Your task to perform on an android device: turn off picture-in-picture Image 0: 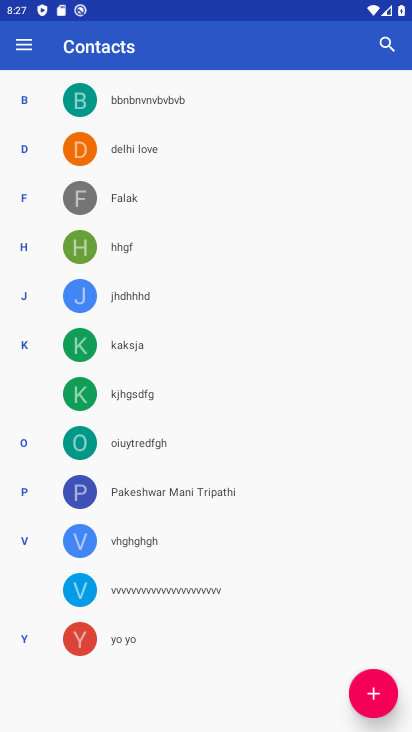
Step 0: press home button
Your task to perform on an android device: turn off picture-in-picture Image 1: 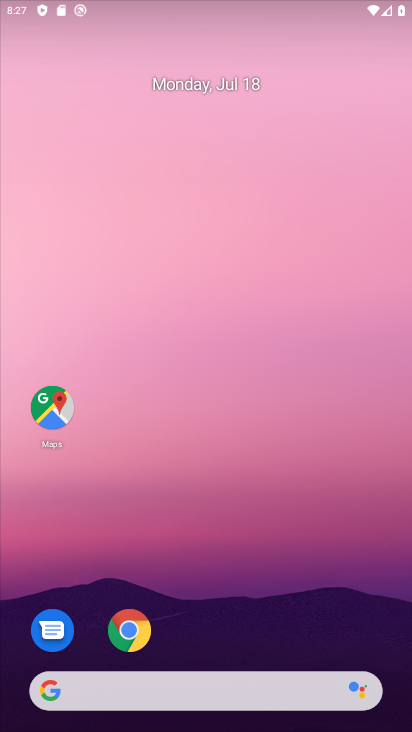
Step 1: drag from (211, 628) to (195, 262)
Your task to perform on an android device: turn off picture-in-picture Image 2: 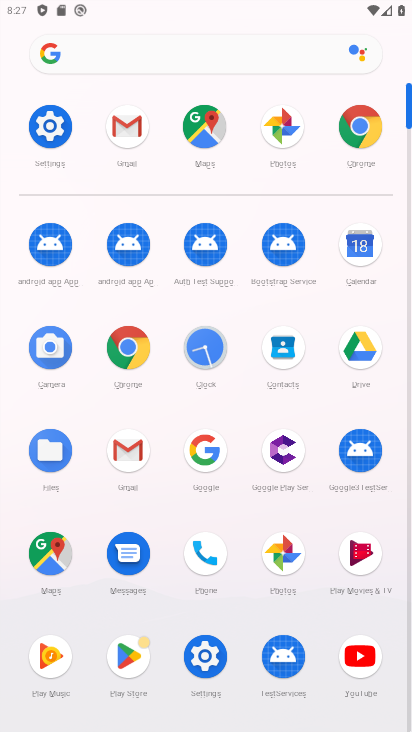
Step 2: click (372, 117)
Your task to perform on an android device: turn off picture-in-picture Image 3: 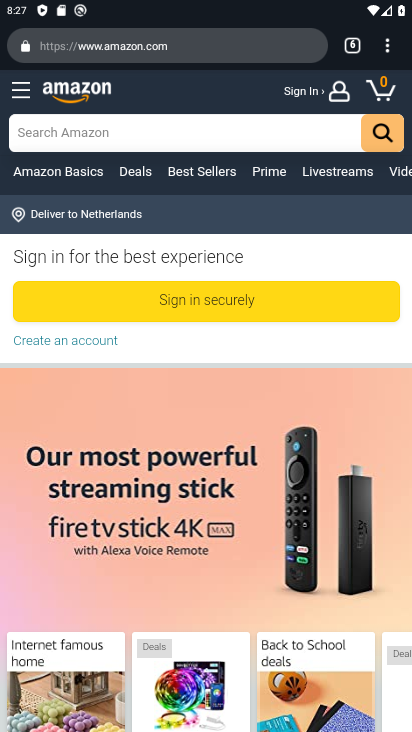
Step 3: click (398, 51)
Your task to perform on an android device: turn off picture-in-picture Image 4: 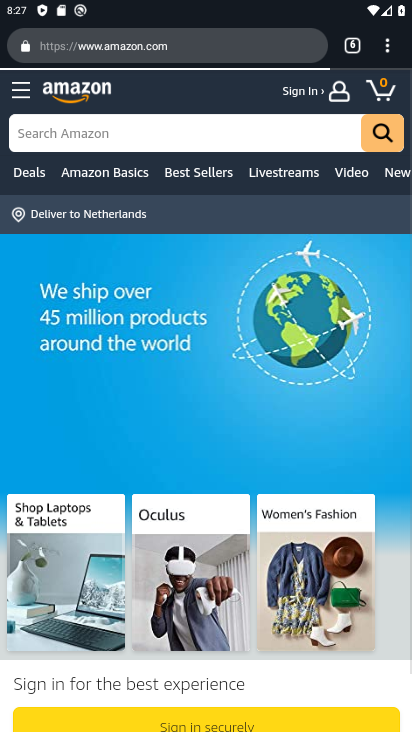
Step 4: click (392, 45)
Your task to perform on an android device: turn off picture-in-picture Image 5: 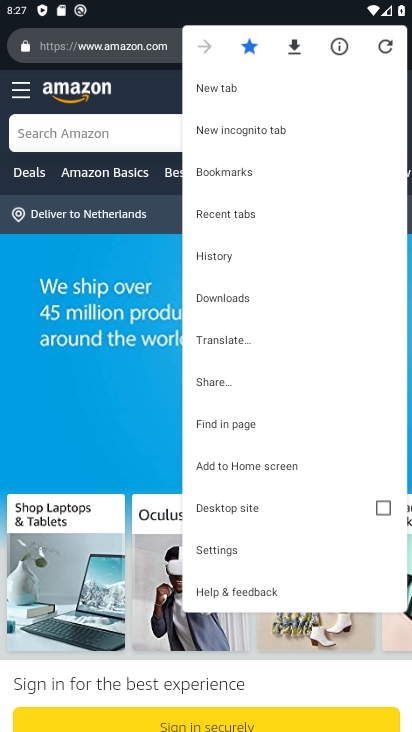
Step 5: click (233, 555)
Your task to perform on an android device: turn off picture-in-picture Image 6: 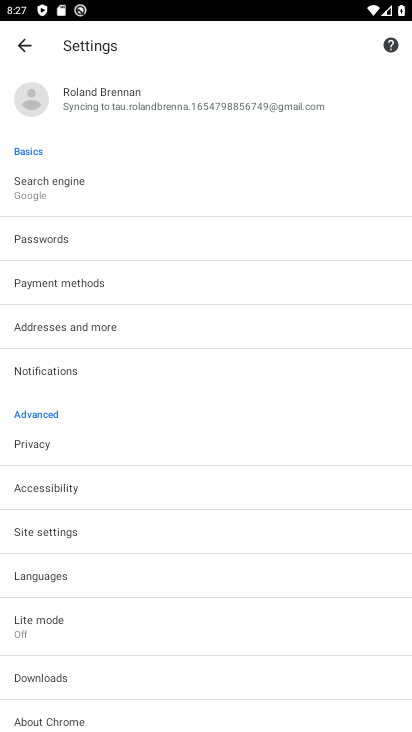
Step 6: press home button
Your task to perform on an android device: turn off picture-in-picture Image 7: 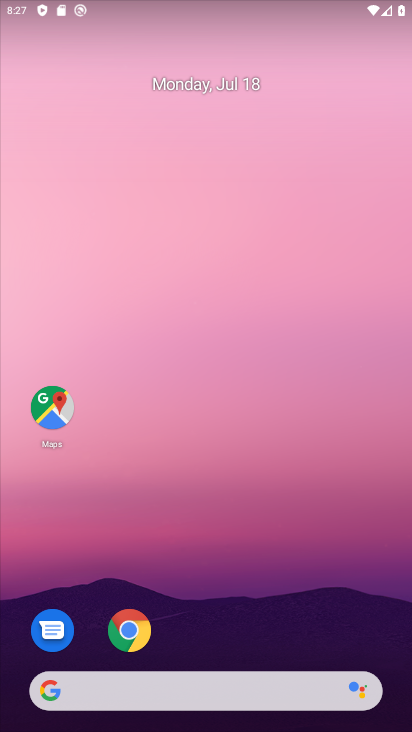
Step 7: drag from (171, 638) to (224, 238)
Your task to perform on an android device: turn off picture-in-picture Image 8: 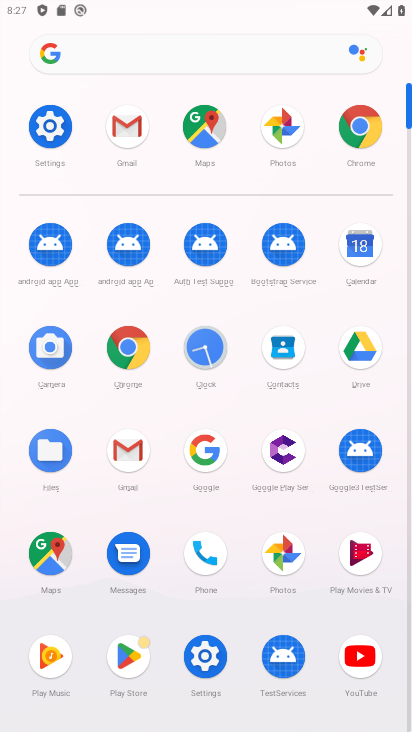
Step 8: click (61, 125)
Your task to perform on an android device: turn off picture-in-picture Image 9: 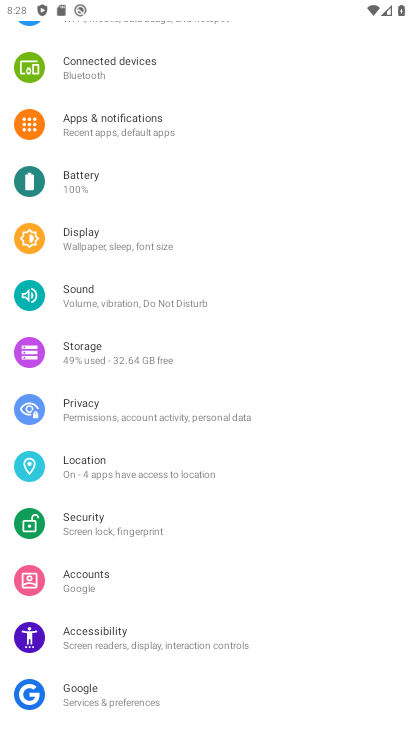
Step 9: drag from (177, 67) to (151, 571)
Your task to perform on an android device: turn off picture-in-picture Image 10: 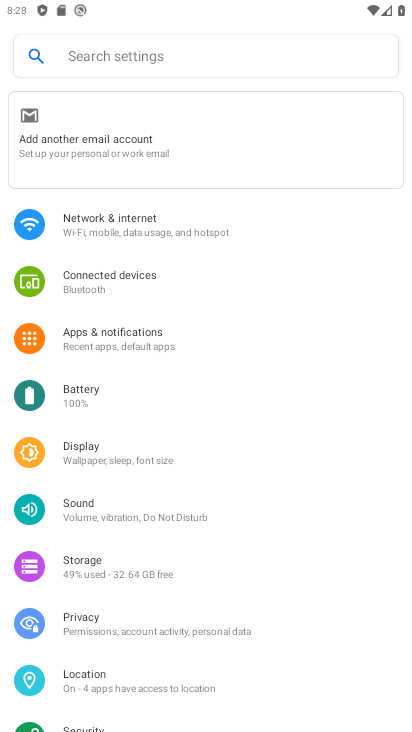
Step 10: click (152, 221)
Your task to perform on an android device: turn off picture-in-picture Image 11: 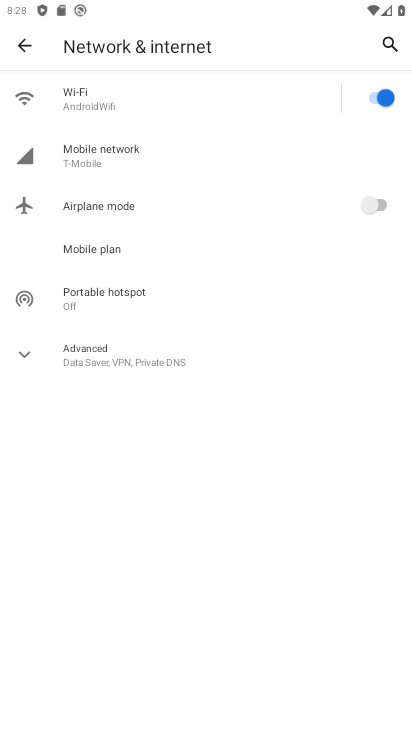
Step 11: click (110, 341)
Your task to perform on an android device: turn off picture-in-picture Image 12: 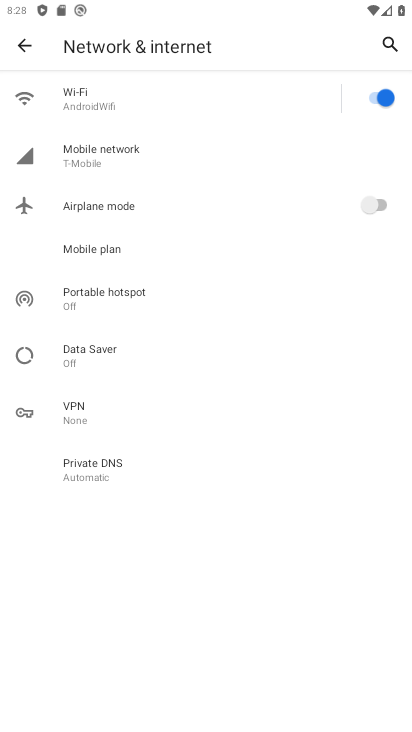
Step 12: click (21, 39)
Your task to perform on an android device: turn off picture-in-picture Image 13: 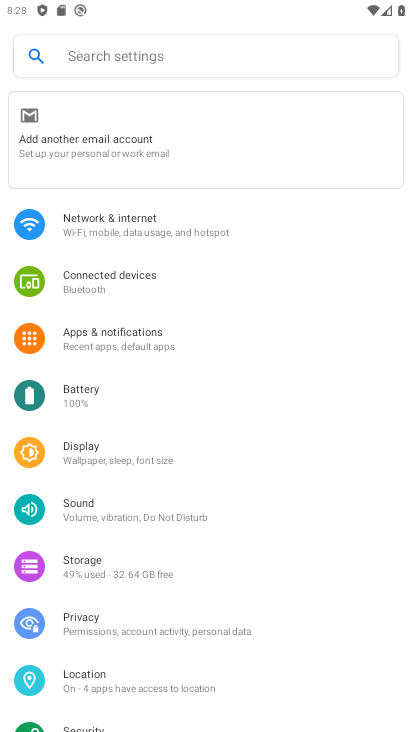
Step 13: click (135, 354)
Your task to perform on an android device: turn off picture-in-picture Image 14: 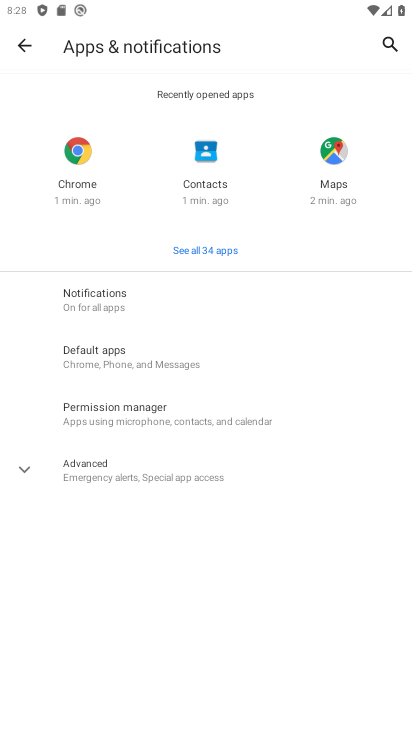
Step 14: click (161, 456)
Your task to perform on an android device: turn off picture-in-picture Image 15: 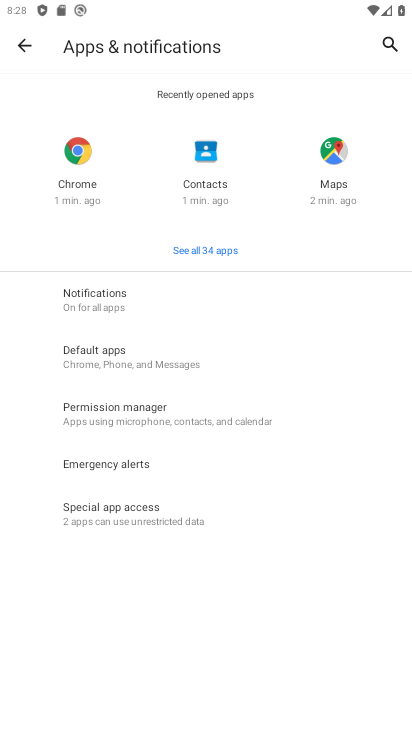
Step 15: click (129, 522)
Your task to perform on an android device: turn off picture-in-picture Image 16: 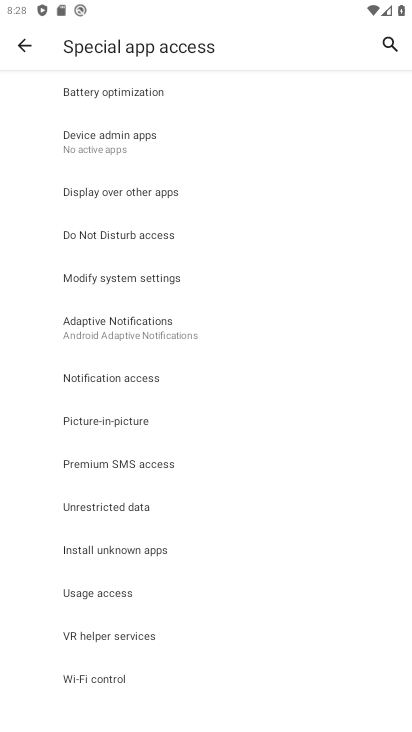
Step 16: click (139, 428)
Your task to perform on an android device: turn off picture-in-picture Image 17: 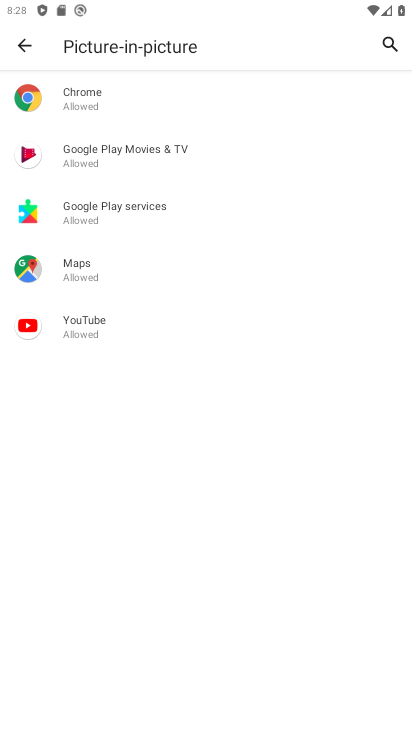
Step 17: click (105, 334)
Your task to perform on an android device: turn off picture-in-picture Image 18: 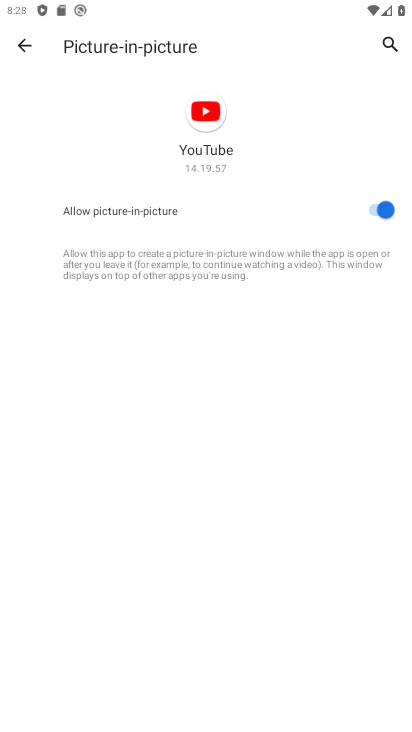
Step 18: click (370, 209)
Your task to perform on an android device: turn off picture-in-picture Image 19: 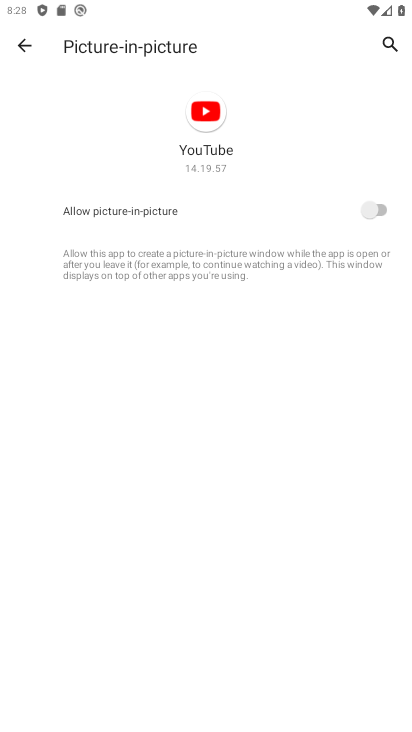
Step 19: task complete